Your task to perform on an android device: Go to sound settings Image 0: 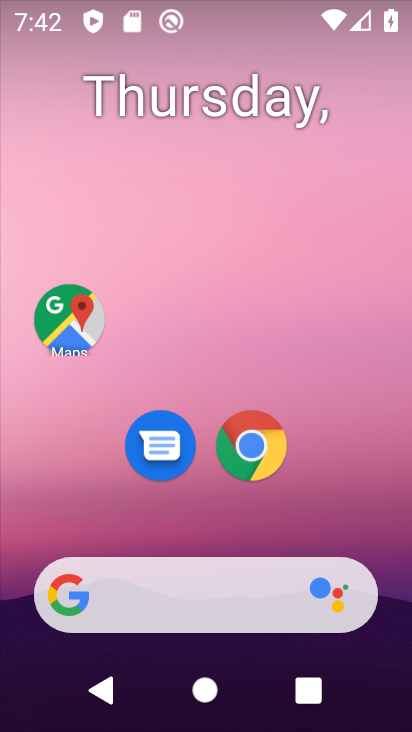
Step 0: click (399, 195)
Your task to perform on an android device: Go to sound settings Image 1: 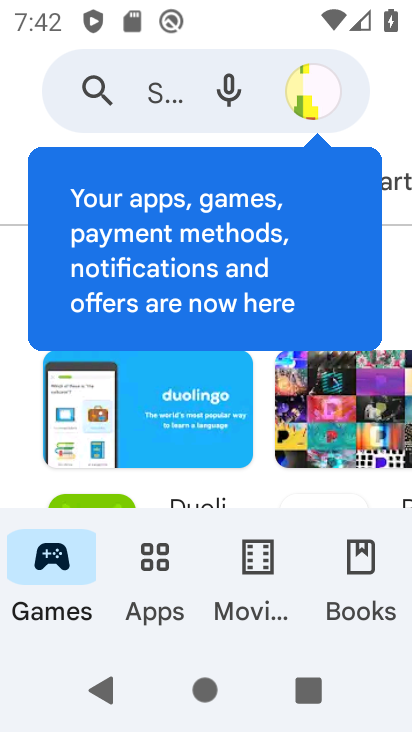
Step 1: drag from (266, 481) to (293, 181)
Your task to perform on an android device: Go to sound settings Image 2: 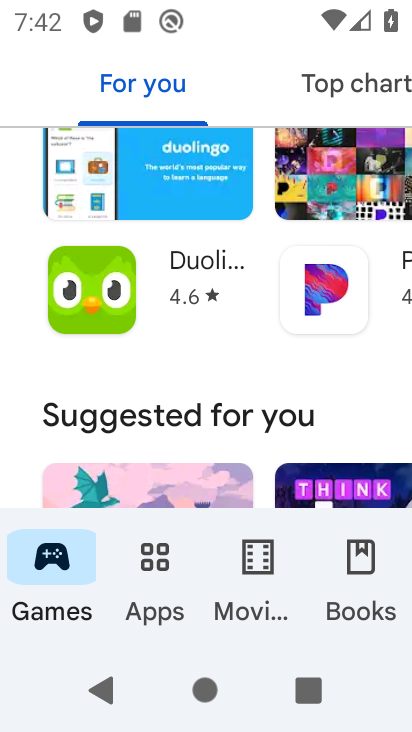
Step 2: press home button
Your task to perform on an android device: Go to sound settings Image 3: 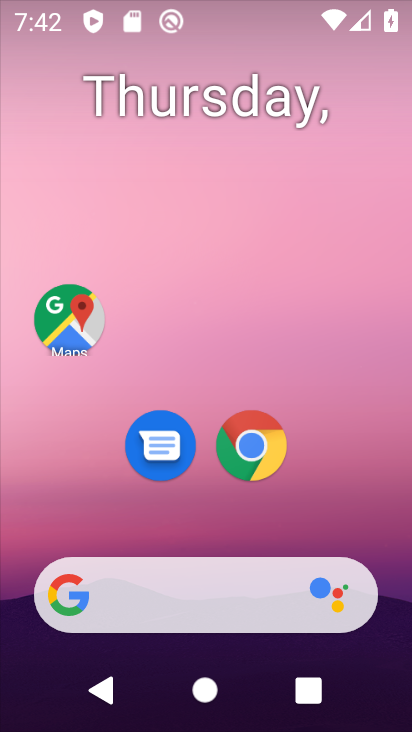
Step 3: drag from (166, 541) to (259, 99)
Your task to perform on an android device: Go to sound settings Image 4: 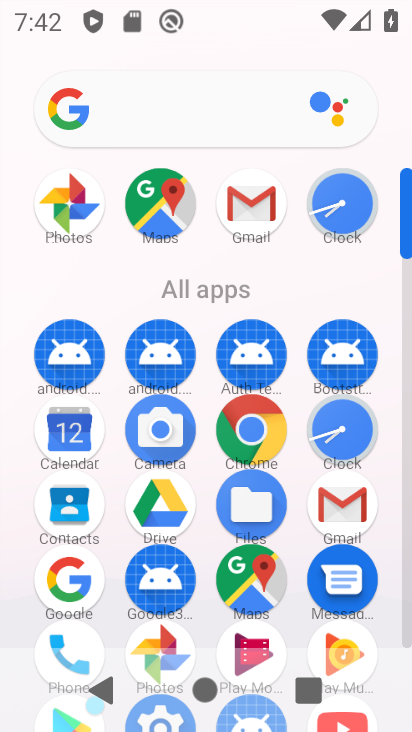
Step 4: drag from (212, 632) to (220, 245)
Your task to perform on an android device: Go to sound settings Image 5: 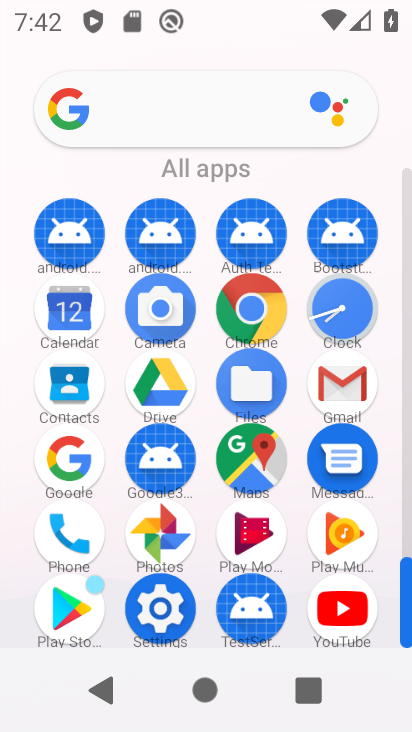
Step 5: click (159, 610)
Your task to perform on an android device: Go to sound settings Image 6: 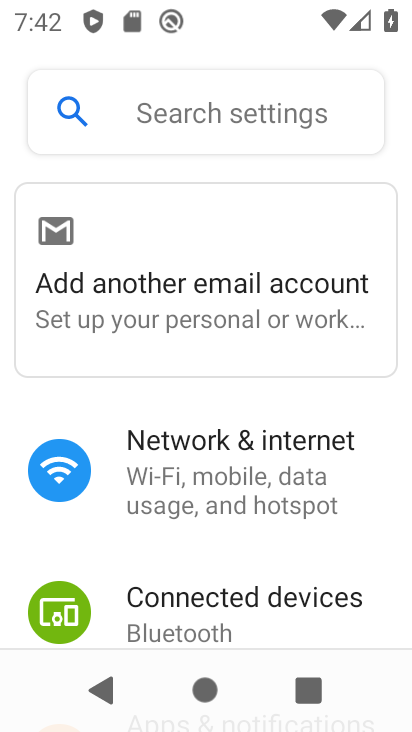
Step 6: click (242, 127)
Your task to perform on an android device: Go to sound settings Image 7: 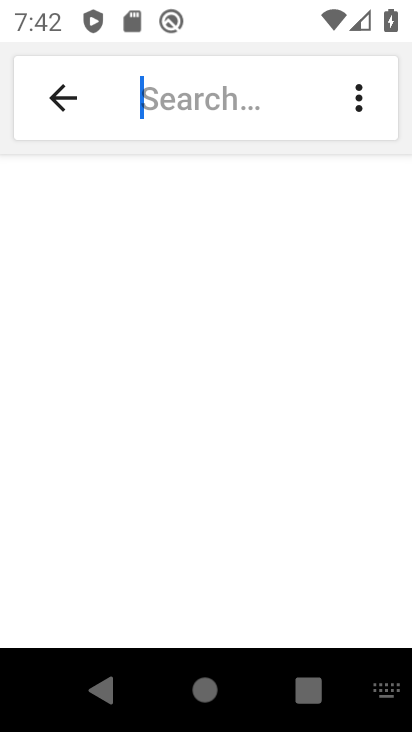
Step 7: click (50, 102)
Your task to perform on an android device: Go to sound settings Image 8: 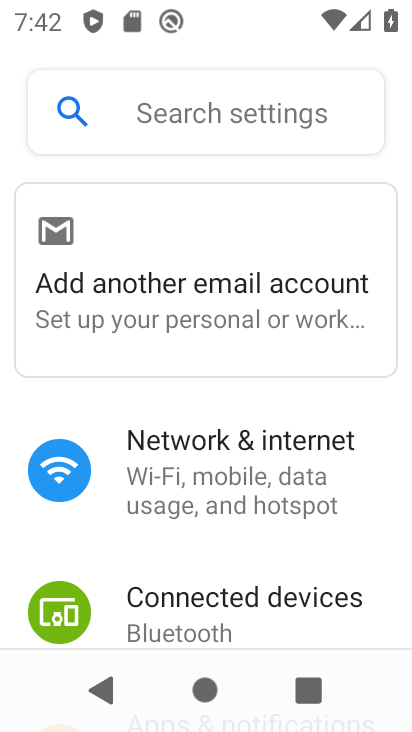
Step 8: drag from (172, 557) to (262, 102)
Your task to perform on an android device: Go to sound settings Image 9: 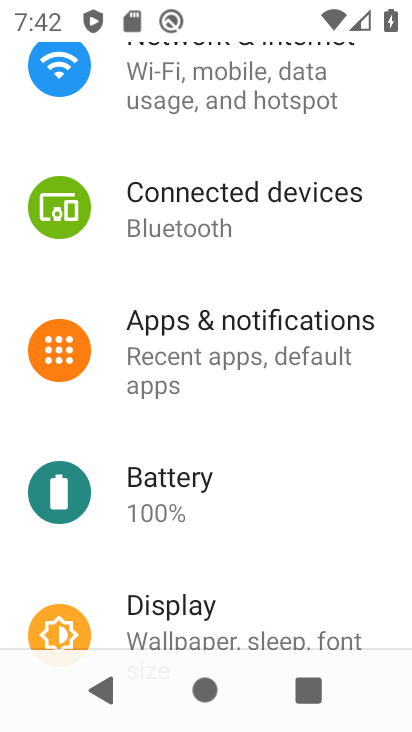
Step 9: drag from (177, 611) to (262, 72)
Your task to perform on an android device: Go to sound settings Image 10: 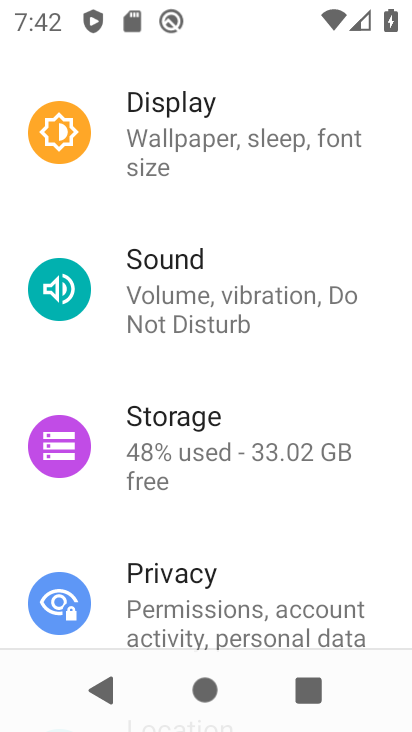
Step 10: click (190, 290)
Your task to perform on an android device: Go to sound settings Image 11: 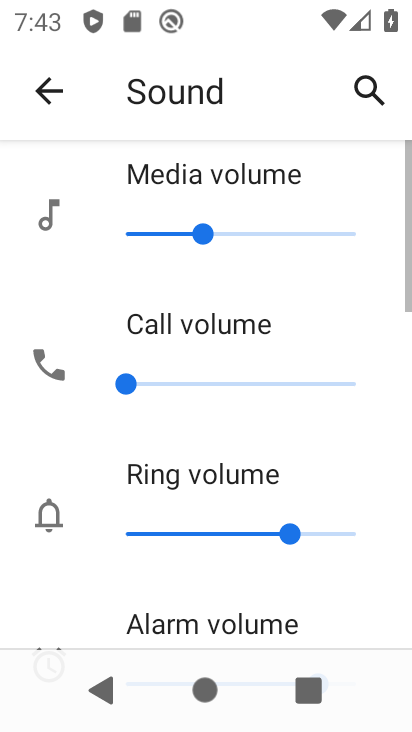
Step 11: task complete